Your task to perform on an android device: change the clock style Image 0: 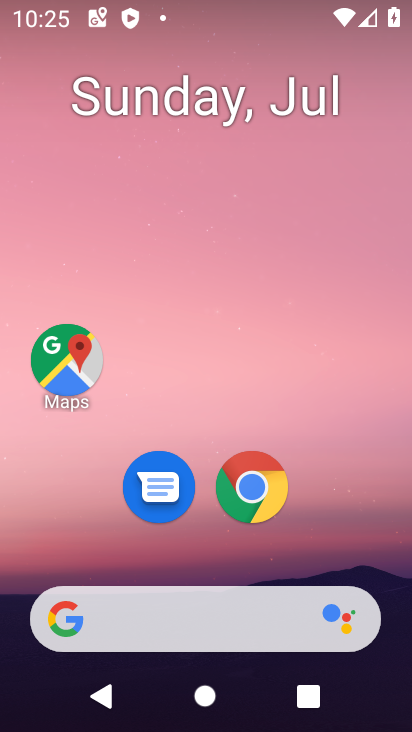
Step 0: drag from (215, 443) to (270, 71)
Your task to perform on an android device: change the clock style Image 1: 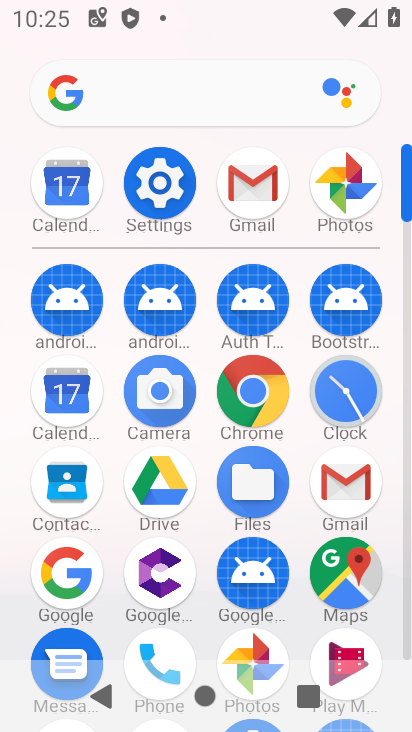
Step 1: click (340, 374)
Your task to perform on an android device: change the clock style Image 2: 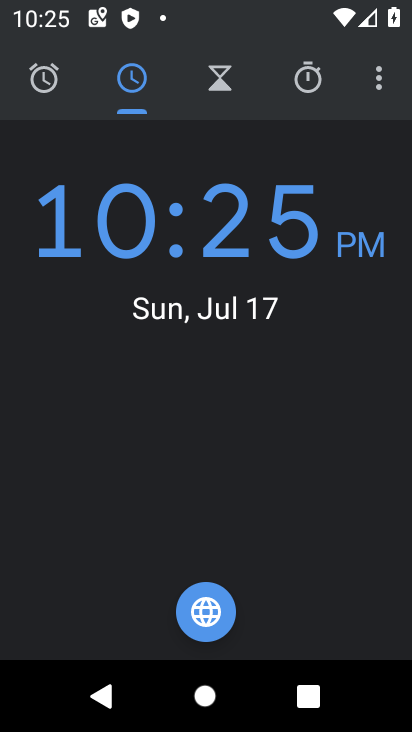
Step 2: click (379, 79)
Your task to perform on an android device: change the clock style Image 3: 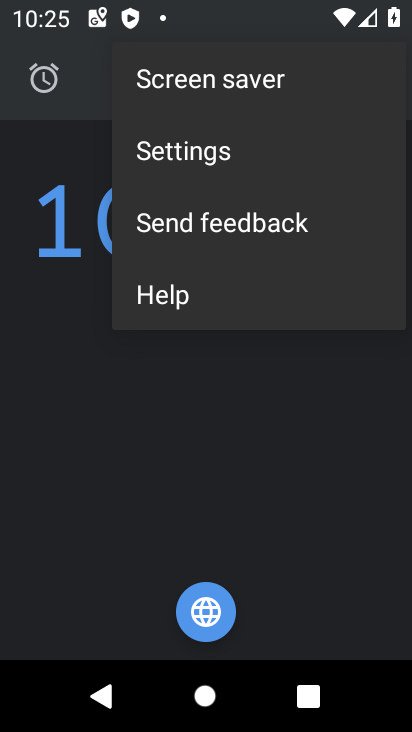
Step 3: click (194, 164)
Your task to perform on an android device: change the clock style Image 4: 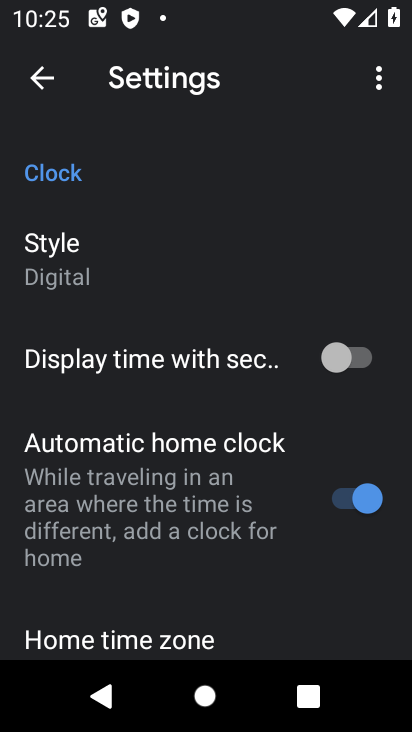
Step 4: click (97, 264)
Your task to perform on an android device: change the clock style Image 5: 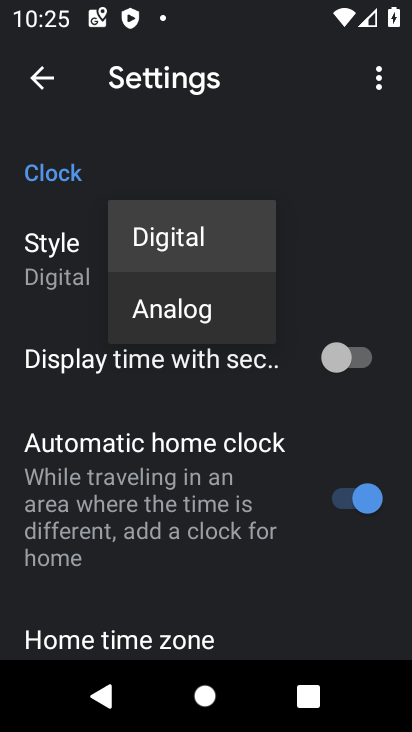
Step 5: click (44, 232)
Your task to perform on an android device: change the clock style Image 6: 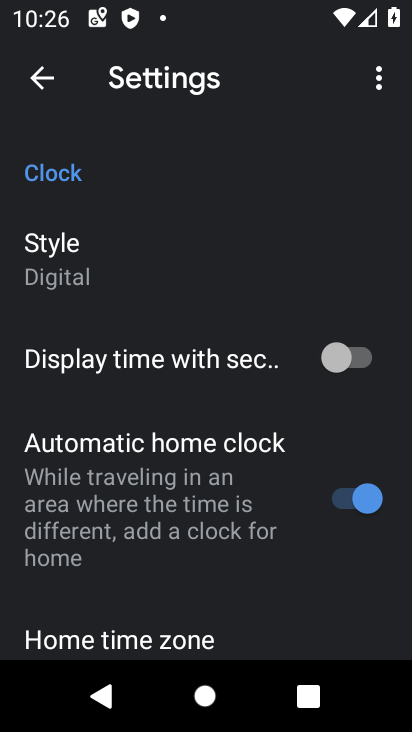
Step 6: click (106, 270)
Your task to perform on an android device: change the clock style Image 7: 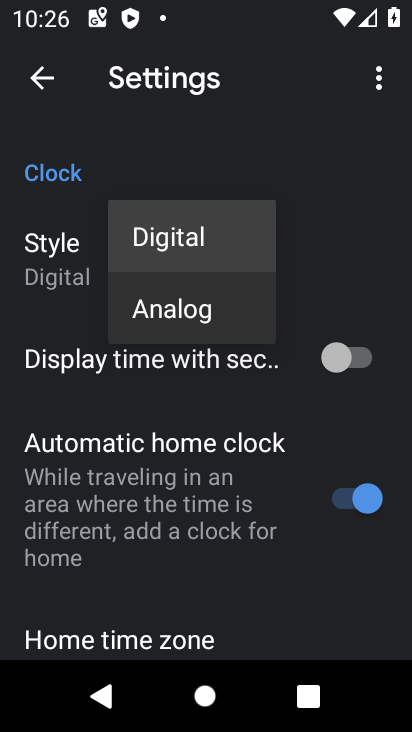
Step 7: click (171, 316)
Your task to perform on an android device: change the clock style Image 8: 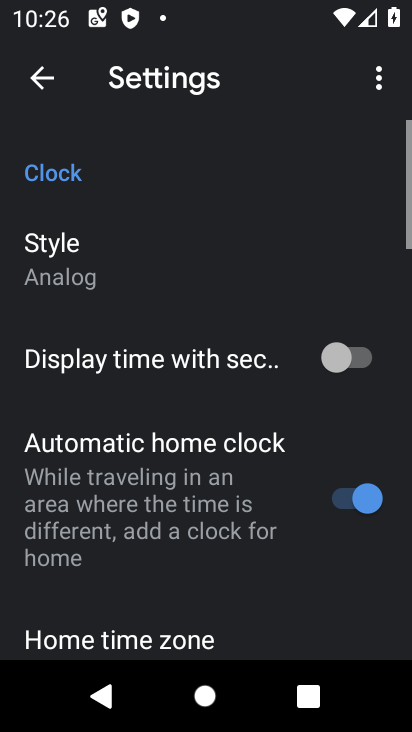
Step 8: task complete